Your task to perform on an android device: Do I have any events this weekend? Image 0: 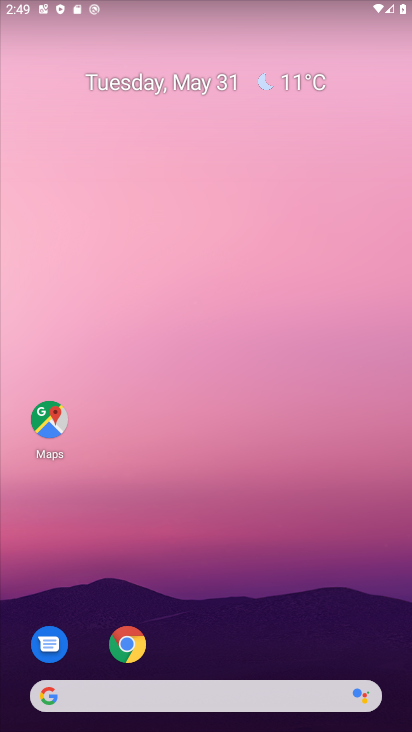
Step 0: drag from (199, 451) to (248, 144)
Your task to perform on an android device: Do I have any events this weekend? Image 1: 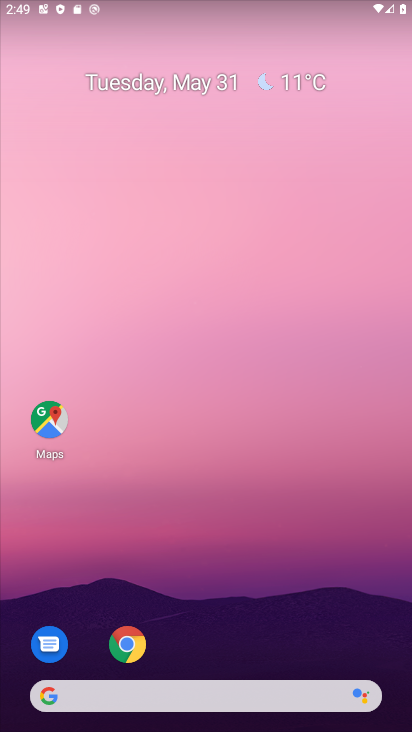
Step 1: drag from (240, 567) to (220, 1)
Your task to perform on an android device: Do I have any events this weekend? Image 2: 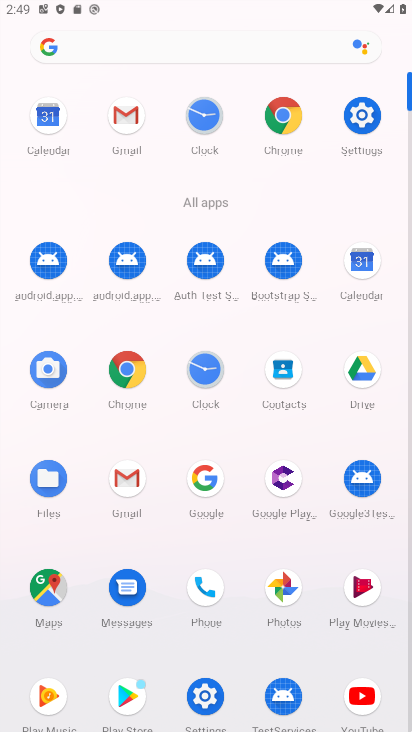
Step 2: click (35, 118)
Your task to perform on an android device: Do I have any events this weekend? Image 3: 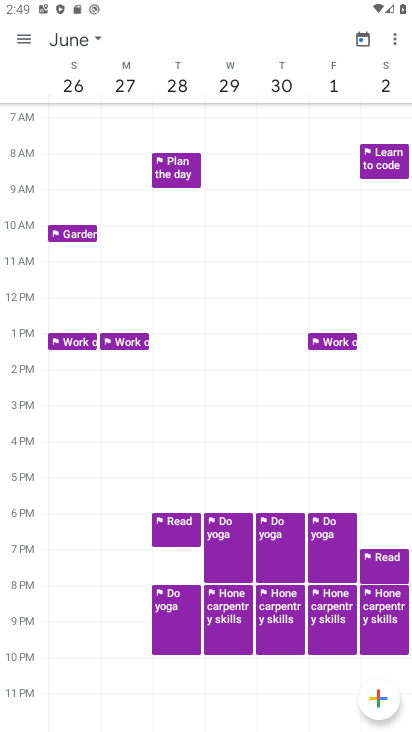
Step 3: task complete